Your task to perform on an android device: turn off wifi Image 0: 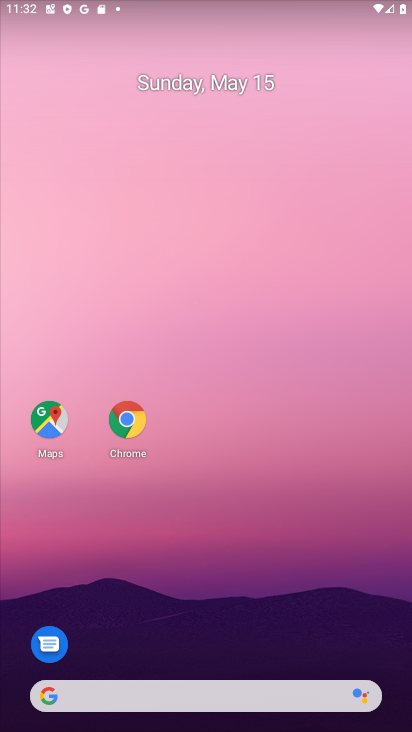
Step 0: drag from (294, 22) to (252, 89)
Your task to perform on an android device: turn off wifi Image 1: 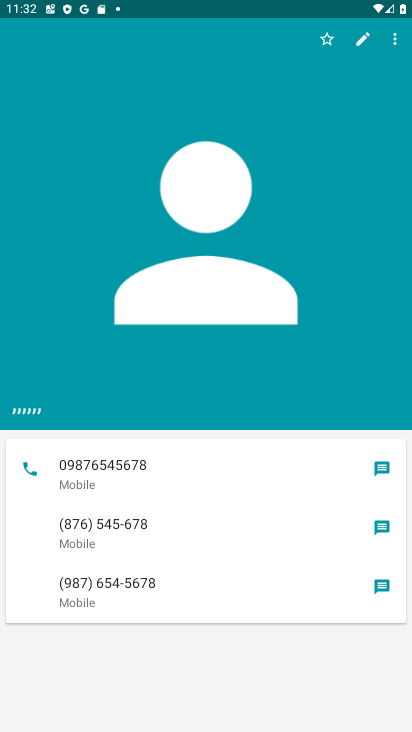
Step 1: press home button
Your task to perform on an android device: turn off wifi Image 2: 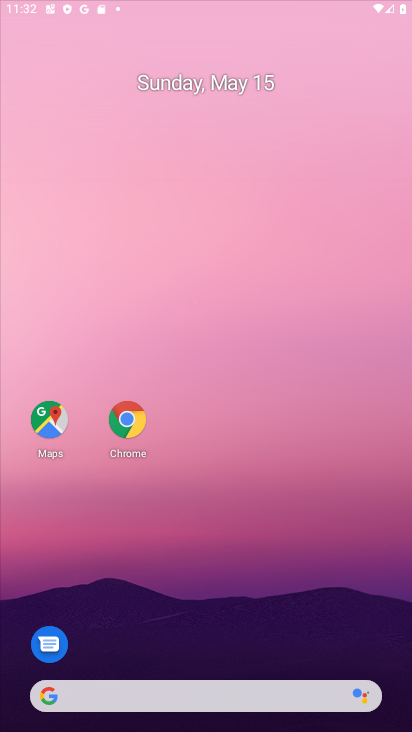
Step 2: drag from (220, 515) to (368, 3)
Your task to perform on an android device: turn off wifi Image 3: 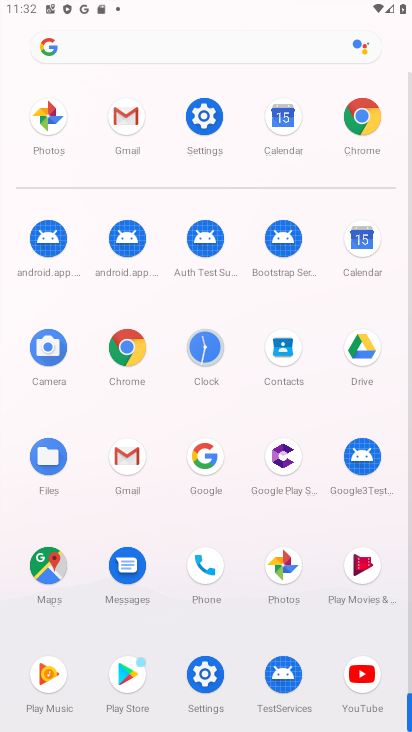
Step 3: click (210, 119)
Your task to perform on an android device: turn off wifi Image 4: 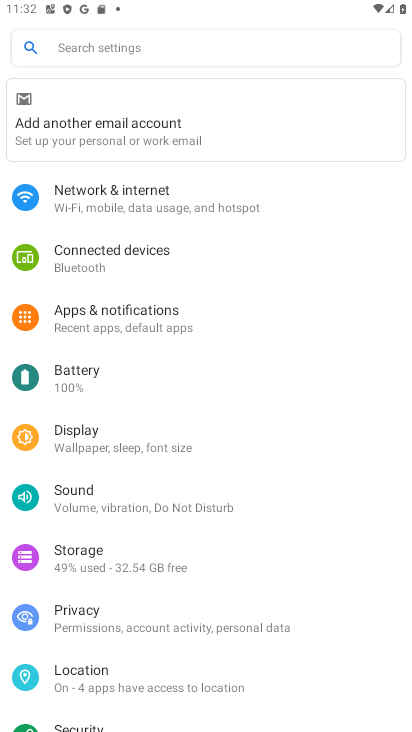
Step 4: click (120, 203)
Your task to perform on an android device: turn off wifi Image 5: 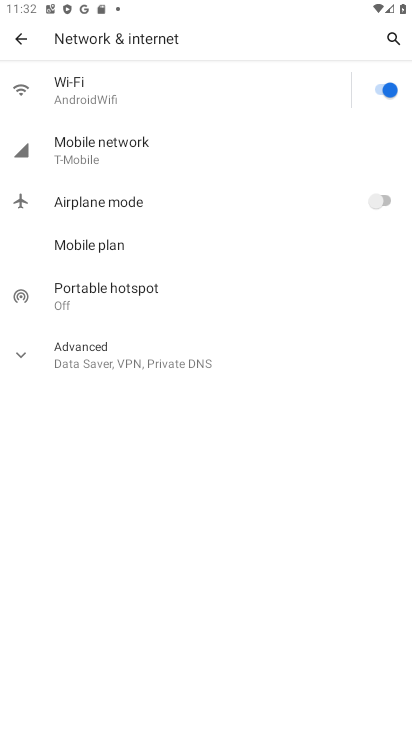
Step 5: click (122, 89)
Your task to perform on an android device: turn off wifi Image 6: 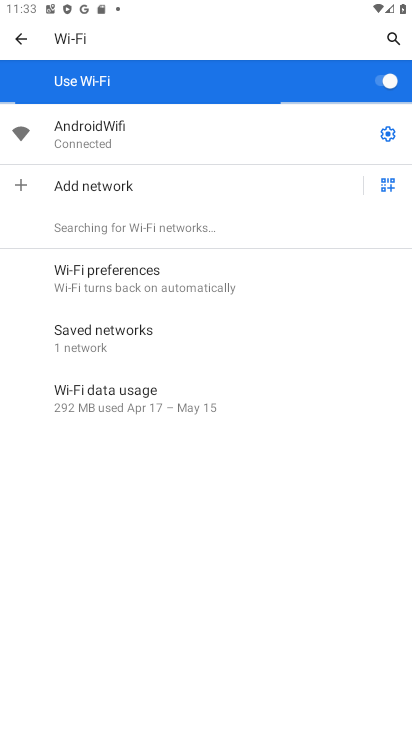
Step 6: click (371, 78)
Your task to perform on an android device: turn off wifi Image 7: 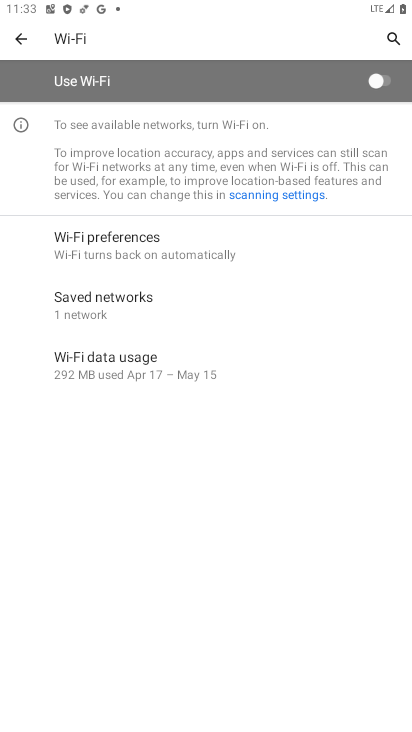
Step 7: task complete